Your task to perform on an android device: Search for Italian restaurants on Maps Image 0: 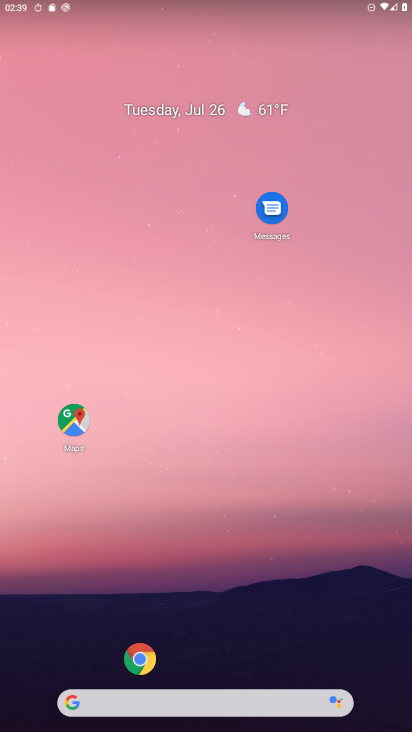
Step 0: click (66, 429)
Your task to perform on an android device: Search for Italian restaurants on Maps Image 1: 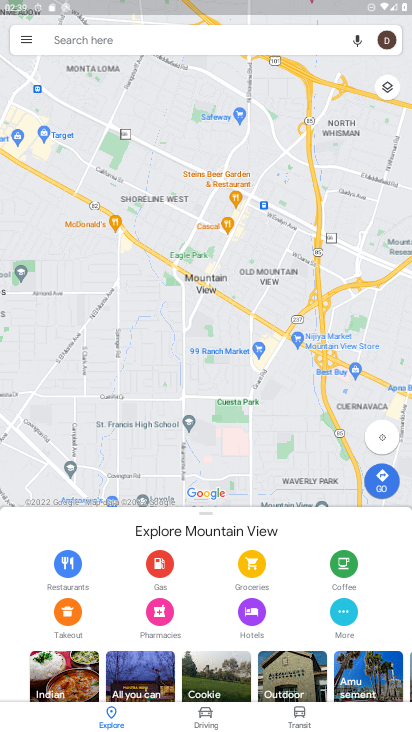
Step 1: click (57, 34)
Your task to perform on an android device: Search for Italian restaurants on Maps Image 2: 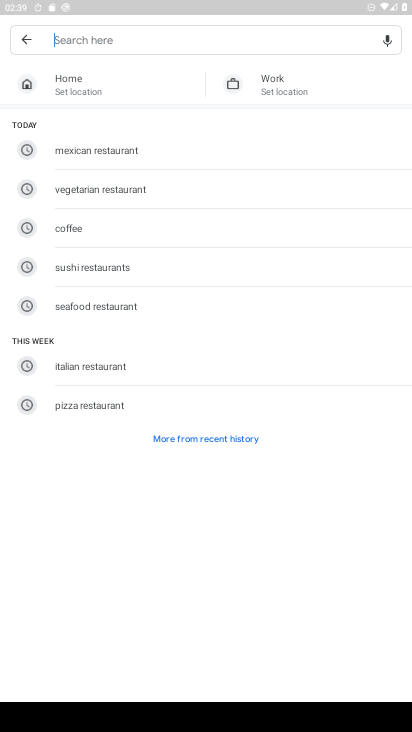
Step 2: click (96, 372)
Your task to perform on an android device: Search for Italian restaurants on Maps Image 3: 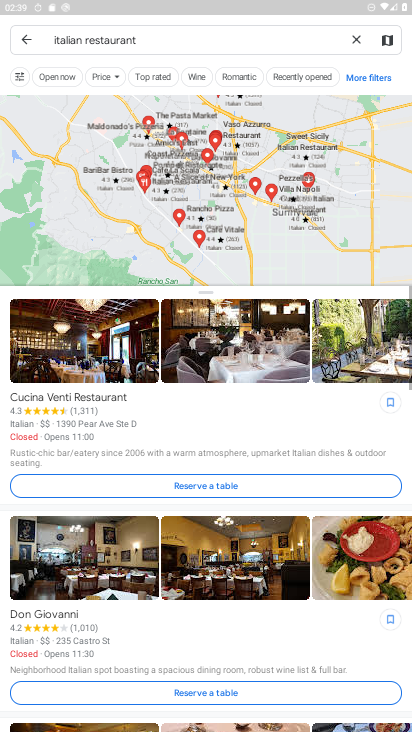
Step 3: task complete